Your task to perform on an android device: turn on showing notifications on the lock screen Image 0: 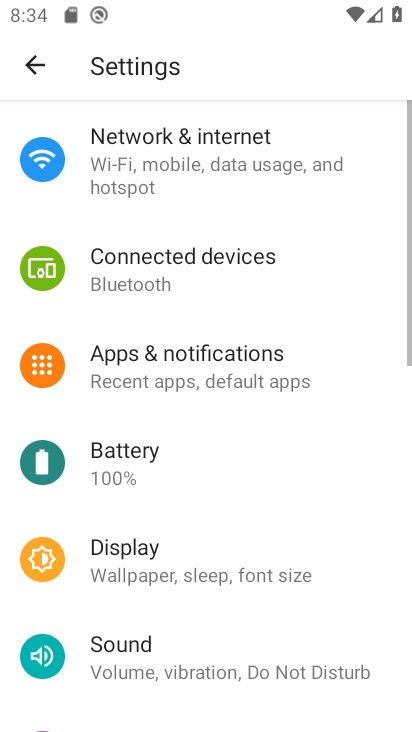
Step 0: press home button
Your task to perform on an android device: turn on showing notifications on the lock screen Image 1: 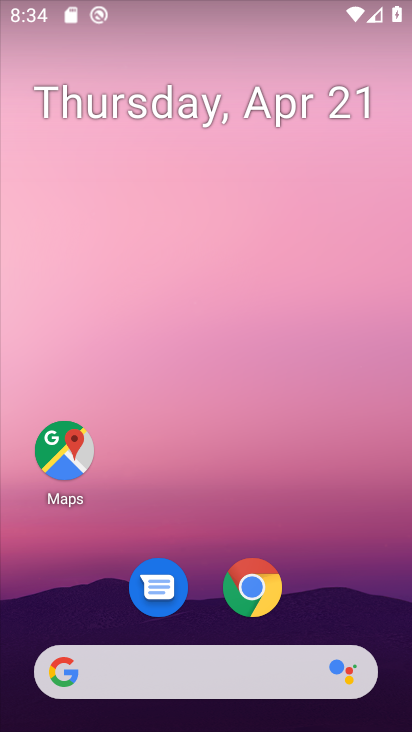
Step 1: click (369, 251)
Your task to perform on an android device: turn on showing notifications on the lock screen Image 2: 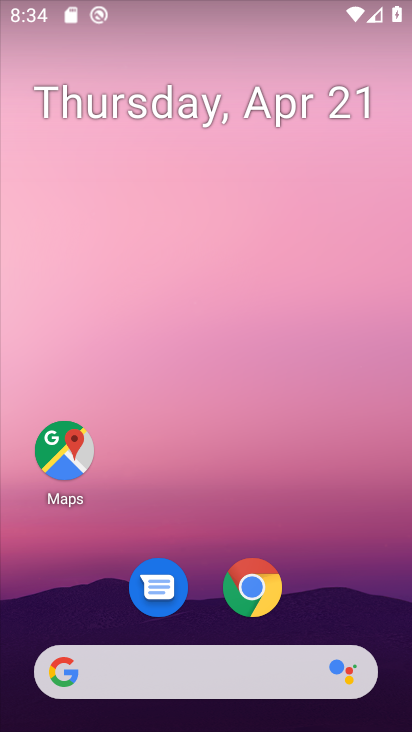
Step 2: drag from (344, 211) to (330, 154)
Your task to perform on an android device: turn on showing notifications on the lock screen Image 3: 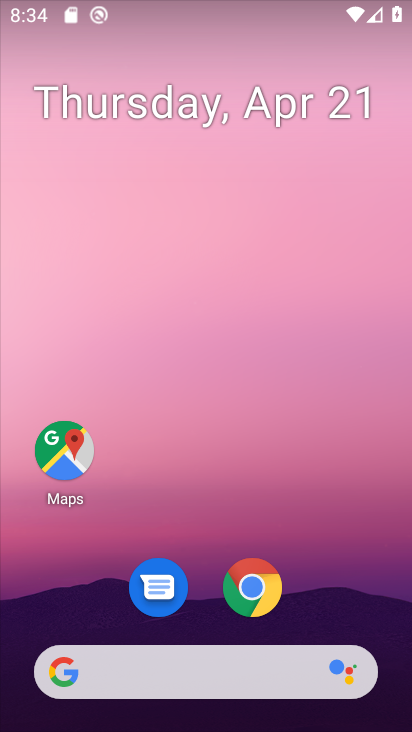
Step 3: drag from (349, 223) to (307, 0)
Your task to perform on an android device: turn on showing notifications on the lock screen Image 4: 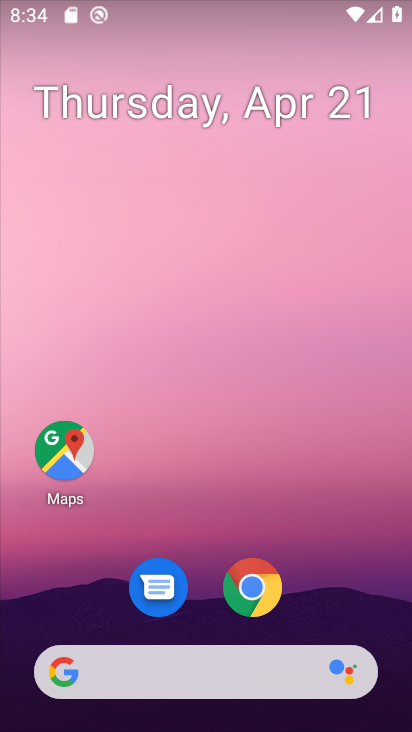
Step 4: drag from (380, 640) to (354, 312)
Your task to perform on an android device: turn on showing notifications on the lock screen Image 5: 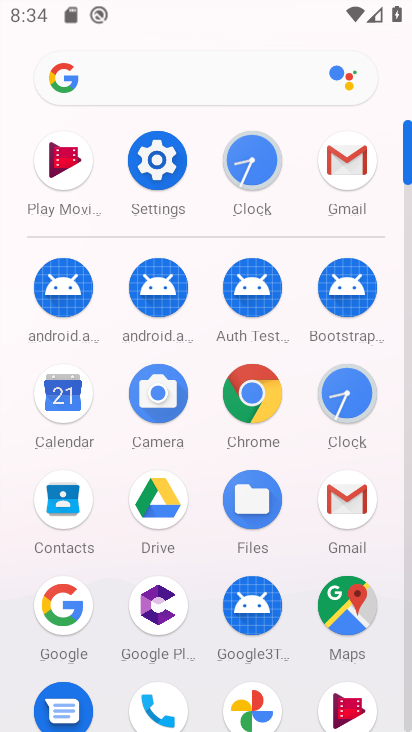
Step 5: click (158, 166)
Your task to perform on an android device: turn on showing notifications on the lock screen Image 6: 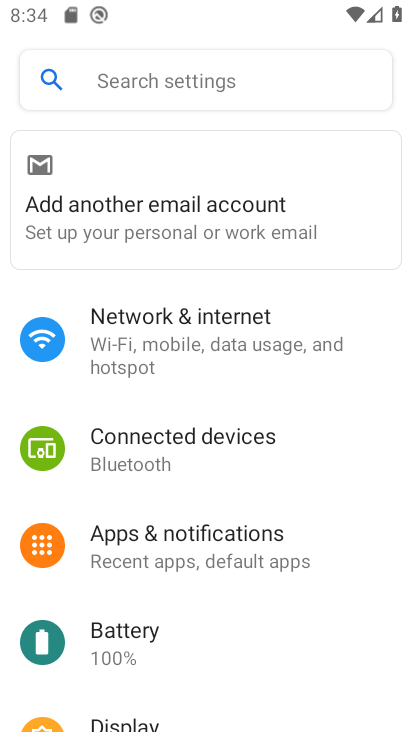
Step 6: click (130, 536)
Your task to perform on an android device: turn on showing notifications on the lock screen Image 7: 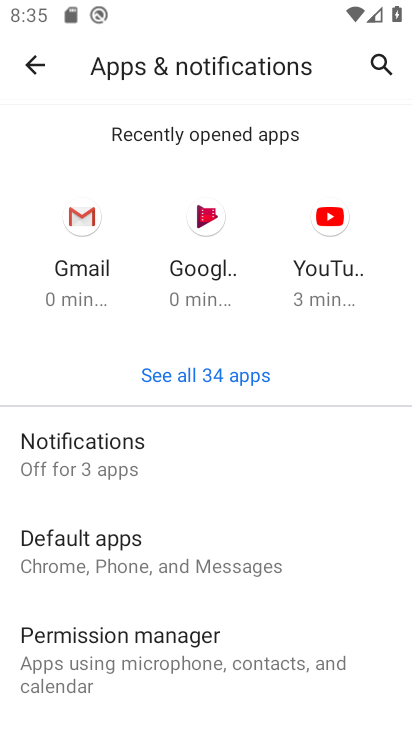
Step 7: click (95, 457)
Your task to perform on an android device: turn on showing notifications on the lock screen Image 8: 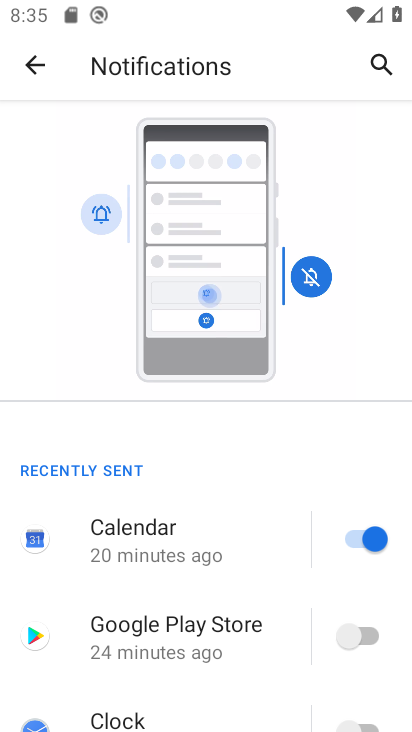
Step 8: drag from (270, 709) to (264, 318)
Your task to perform on an android device: turn on showing notifications on the lock screen Image 9: 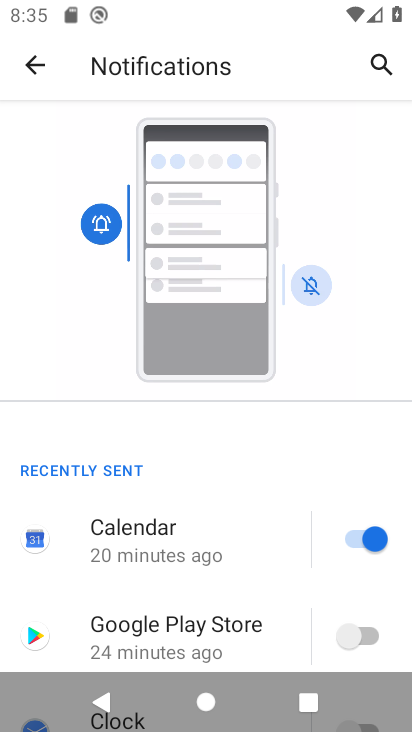
Step 9: drag from (305, 260) to (296, 117)
Your task to perform on an android device: turn on showing notifications on the lock screen Image 10: 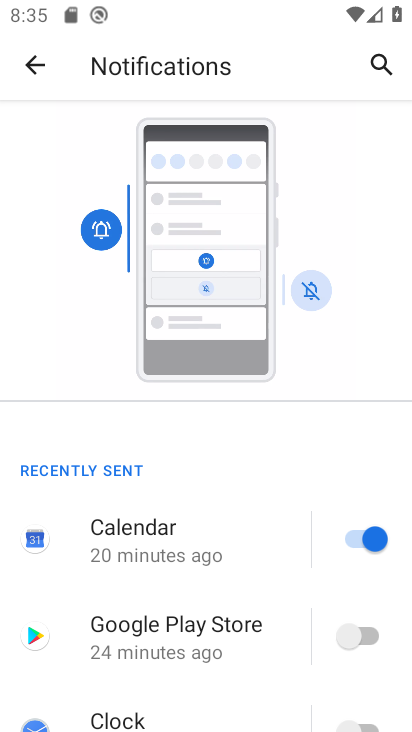
Step 10: drag from (291, 633) to (285, 272)
Your task to perform on an android device: turn on showing notifications on the lock screen Image 11: 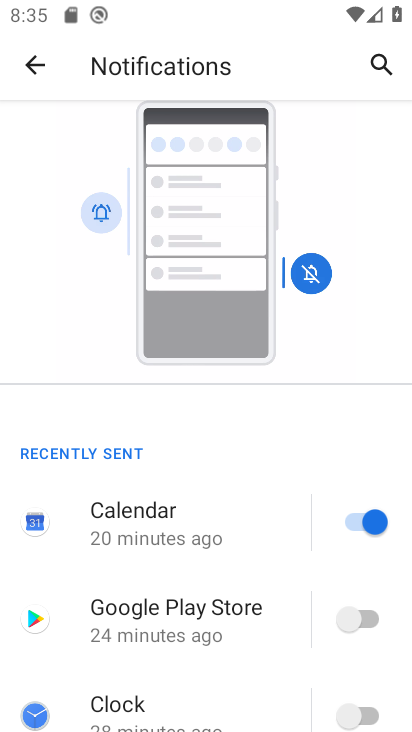
Step 11: drag from (296, 321) to (292, 266)
Your task to perform on an android device: turn on showing notifications on the lock screen Image 12: 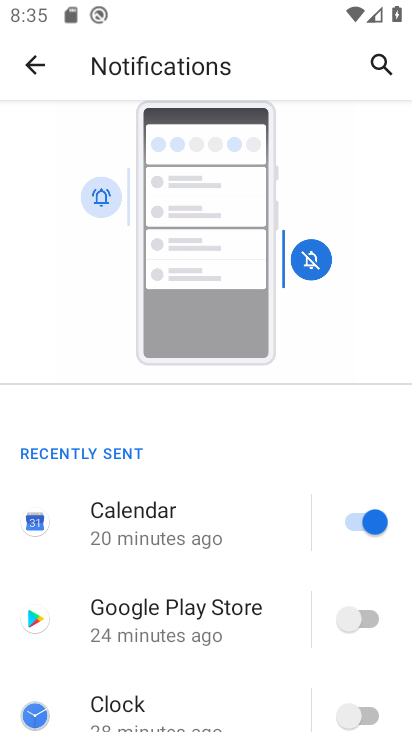
Step 12: drag from (287, 629) to (270, 215)
Your task to perform on an android device: turn on showing notifications on the lock screen Image 13: 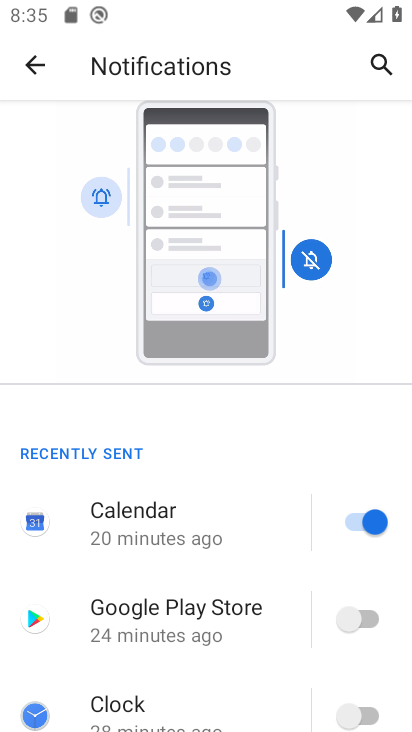
Step 13: drag from (299, 643) to (309, 158)
Your task to perform on an android device: turn on showing notifications on the lock screen Image 14: 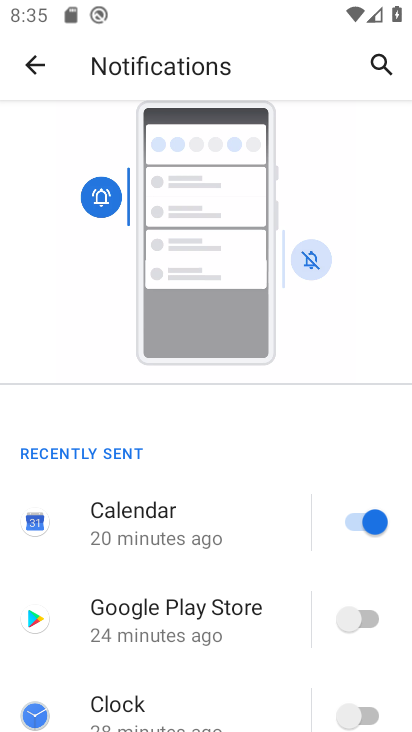
Step 14: drag from (266, 349) to (257, 102)
Your task to perform on an android device: turn on showing notifications on the lock screen Image 15: 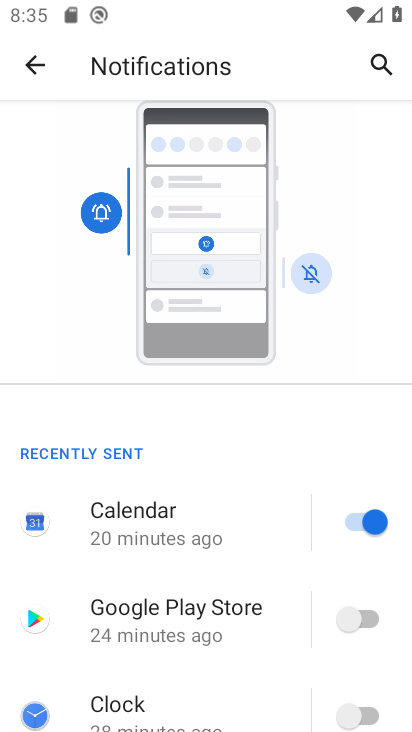
Step 15: drag from (293, 359) to (290, 177)
Your task to perform on an android device: turn on showing notifications on the lock screen Image 16: 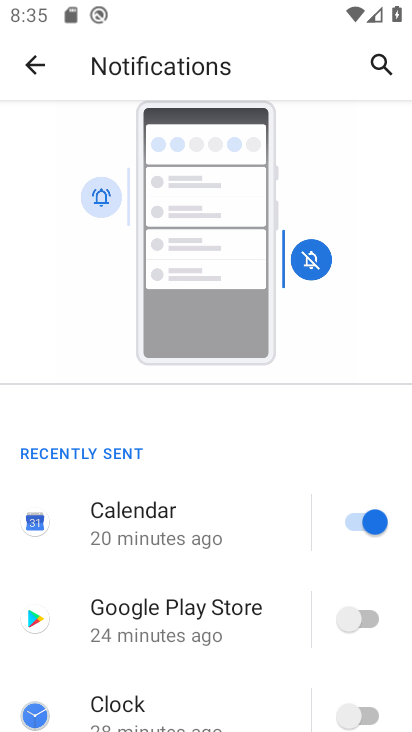
Step 16: drag from (294, 640) to (318, 158)
Your task to perform on an android device: turn on showing notifications on the lock screen Image 17: 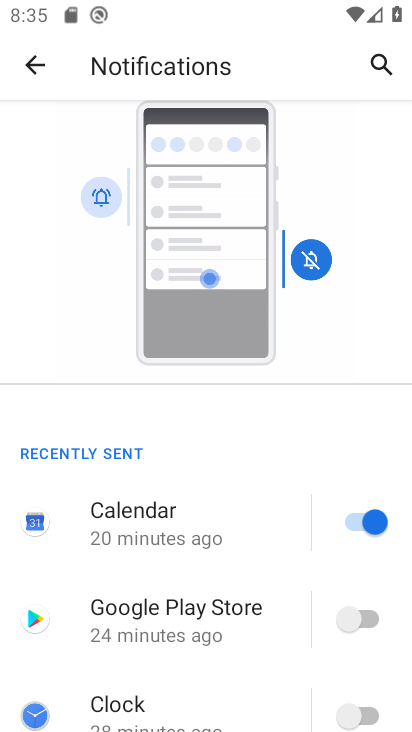
Step 17: drag from (279, 673) to (278, 121)
Your task to perform on an android device: turn on showing notifications on the lock screen Image 18: 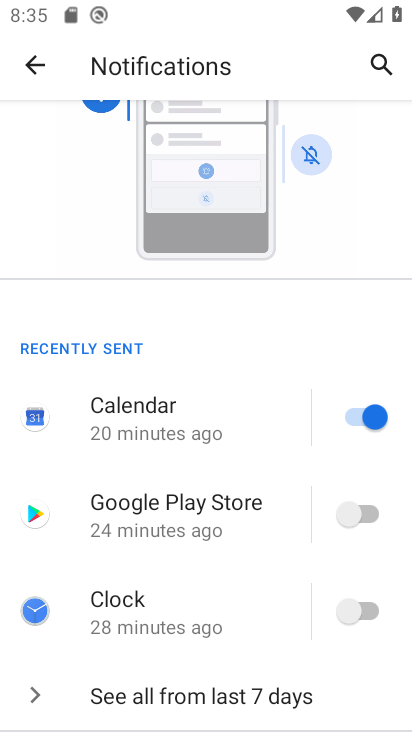
Step 18: drag from (281, 655) to (280, 238)
Your task to perform on an android device: turn on showing notifications on the lock screen Image 19: 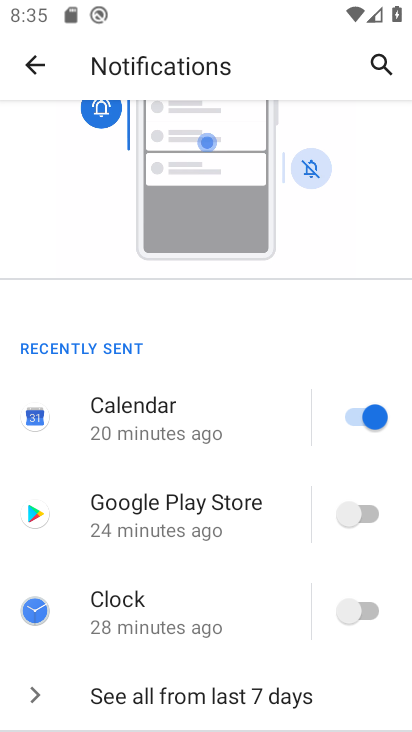
Step 19: drag from (320, 703) to (328, 269)
Your task to perform on an android device: turn on showing notifications on the lock screen Image 20: 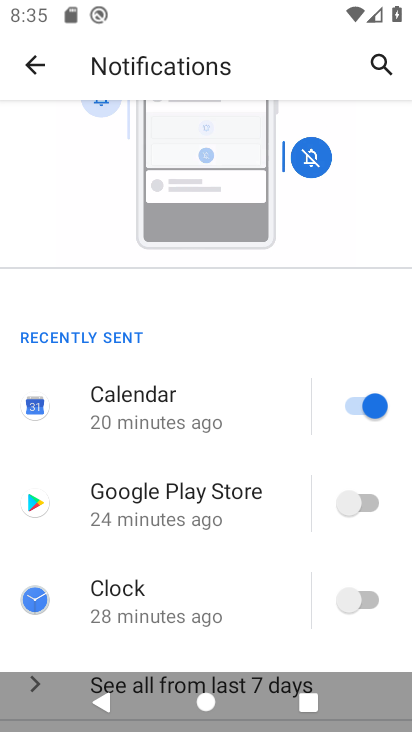
Step 20: drag from (277, 303) to (281, 223)
Your task to perform on an android device: turn on showing notifications on the lock screen Image 21: 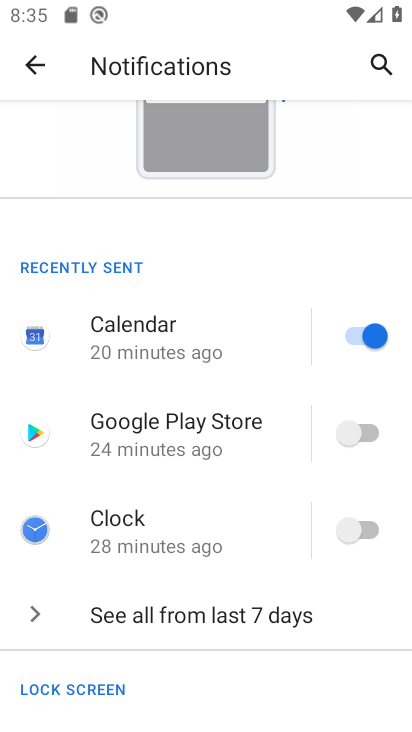
Step 21: drag from (229, 613) to (247, 240)
Your task to perform on an android device: turn on showing notifications on the lock screen Image 22: 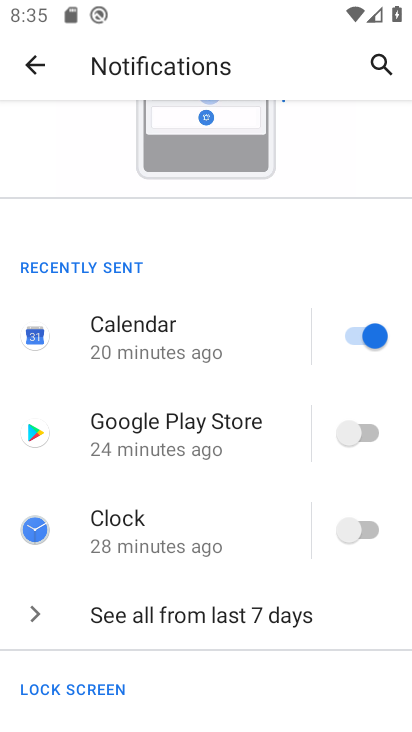
Step 22: drag from (245, 718) to (294, 197)
Your task to perform on an android device: turn on showing notifications on the lock screen Image 23: 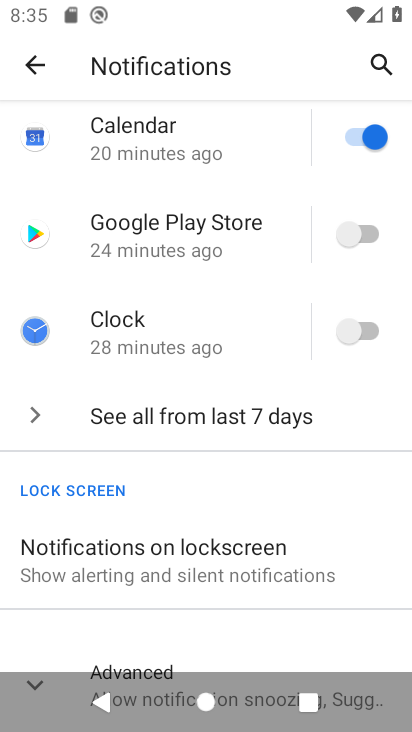
Step 23: click (128, 560)
Your task to perform on an android device: turn on showing notifications on the lock screen Image 24: 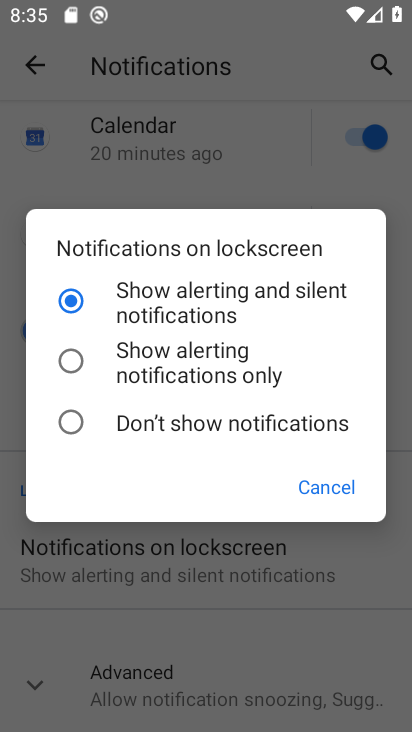
Step 24: task complete